Your task to perform on an android device: turn on location history Image 0: 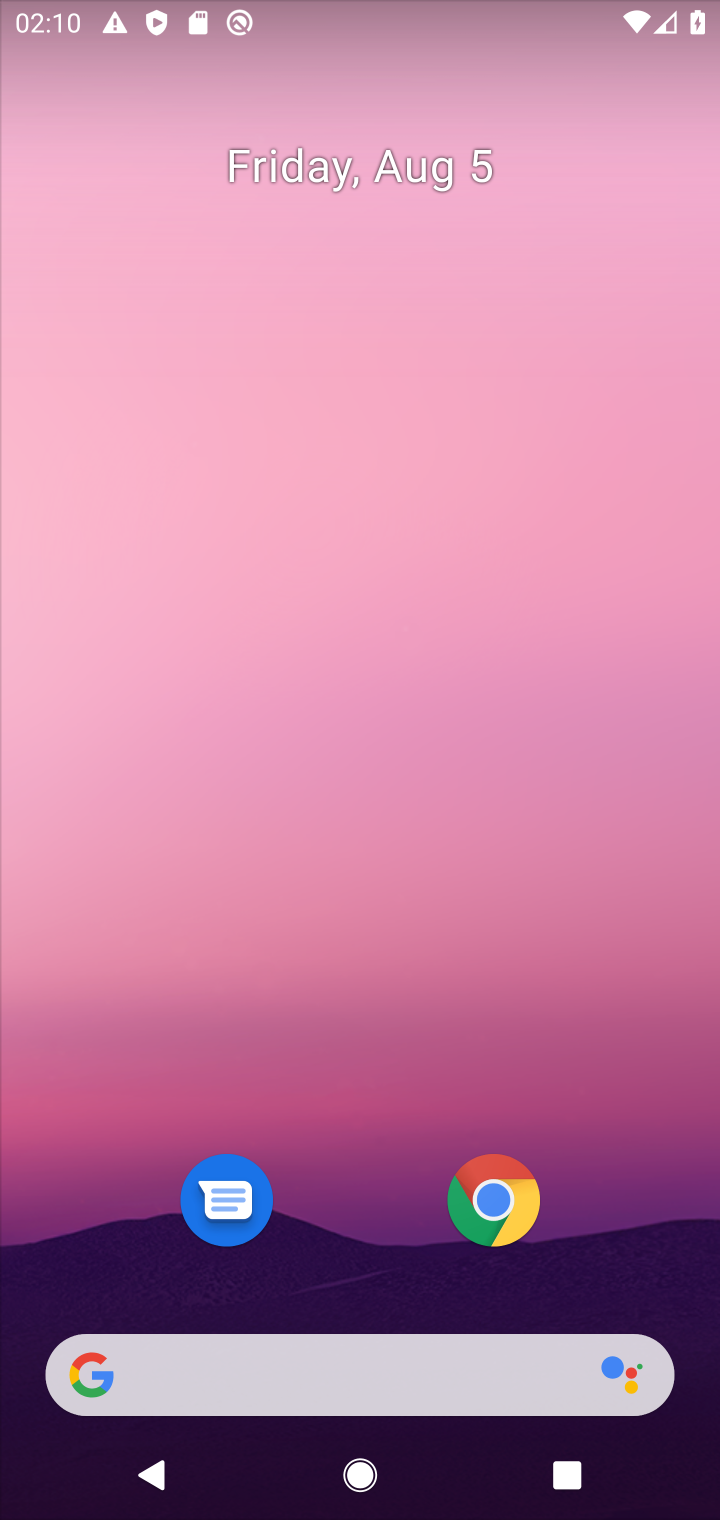
Step 0: drag from (348, 507) to (318, 151)
Your task to perform on an android device: turn on location history Image 1: 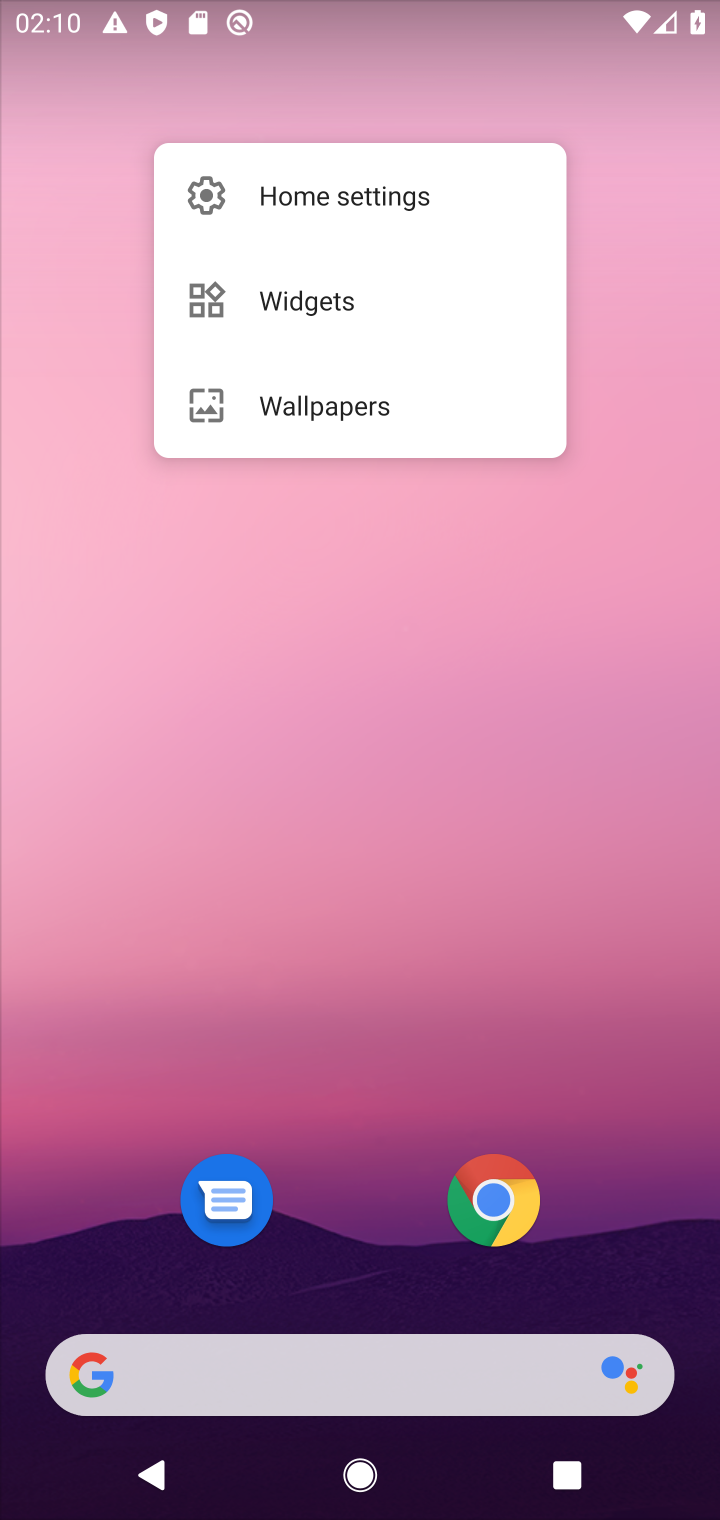
Step 1: click (411, 864)
Your task to perform on an android device: turn on location history Image 2: 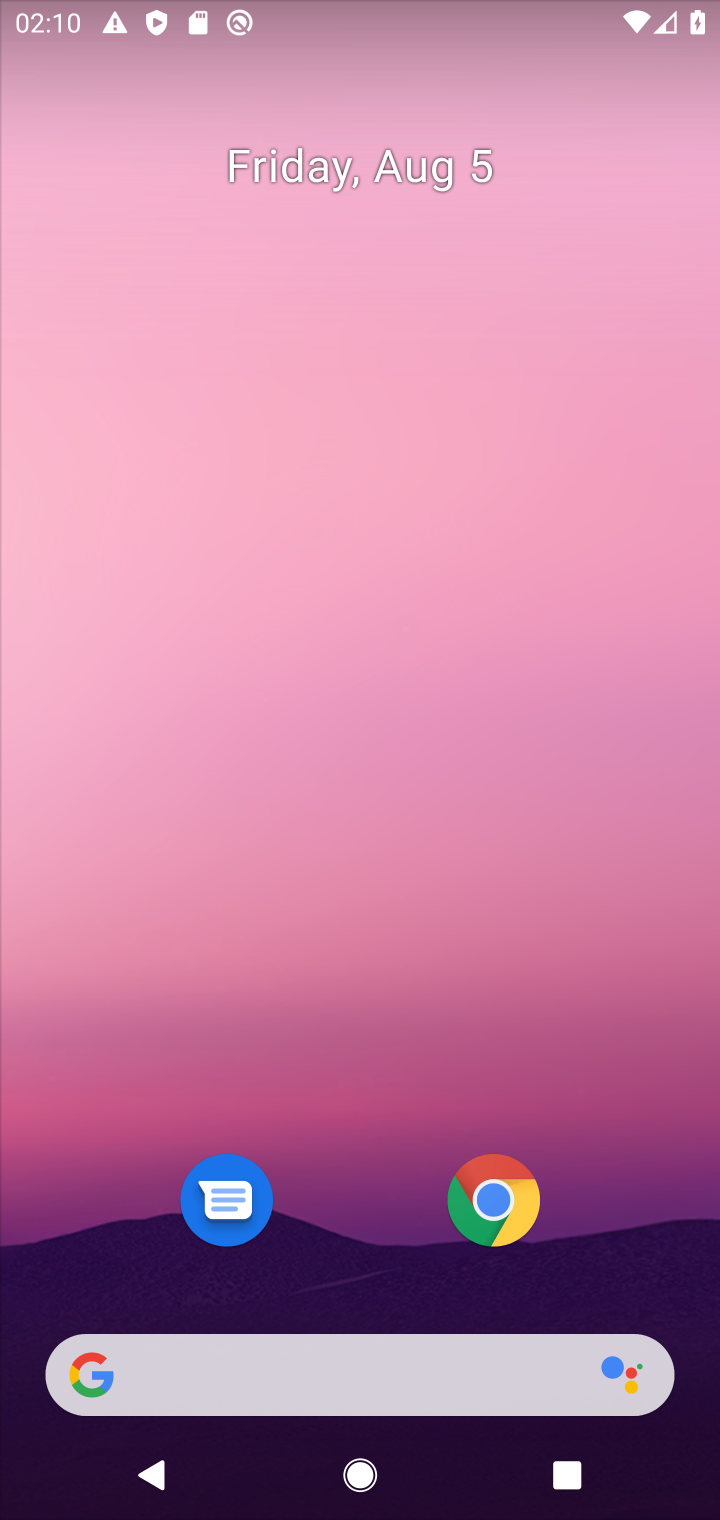
Step 2: drag from (360, 748) to (371, 0)
Your task to perform on an android device: turn on location history Image 3: 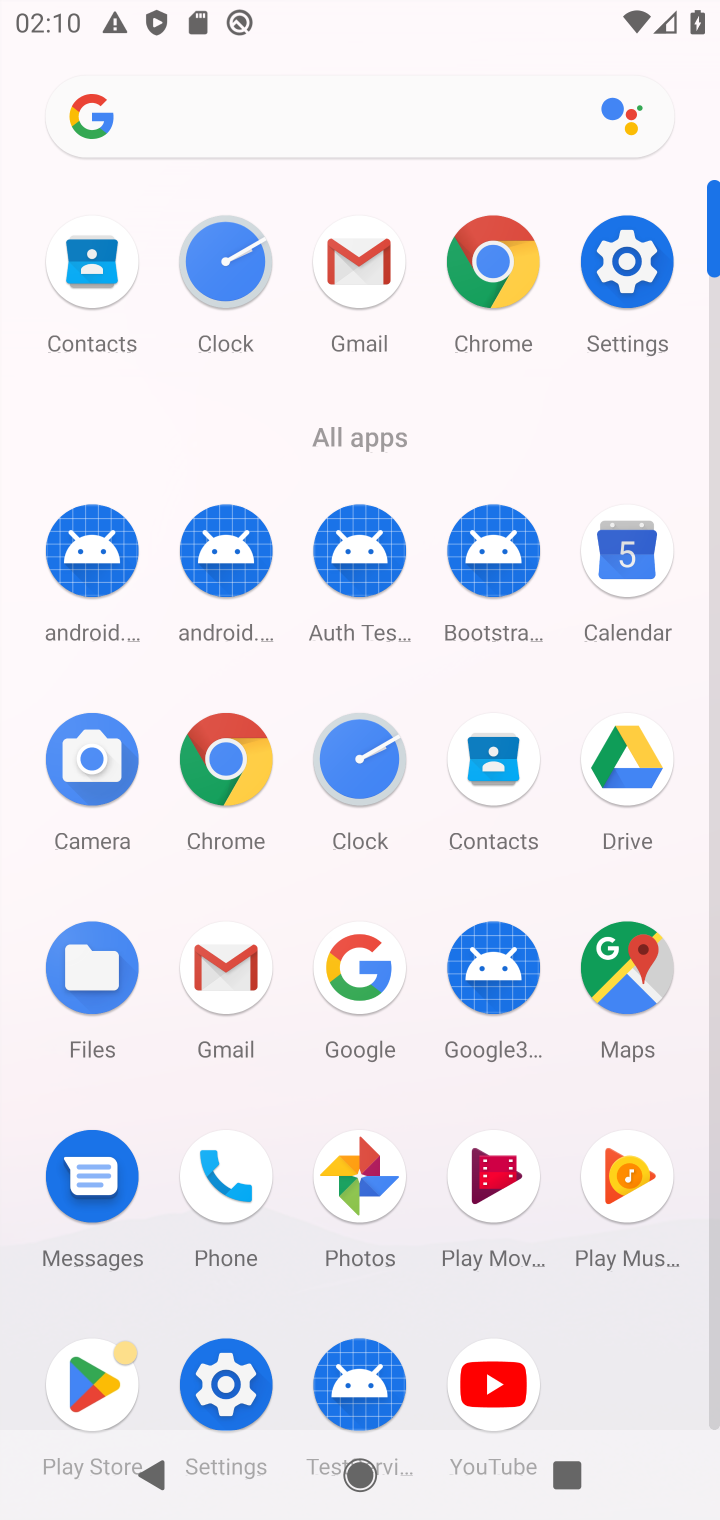
Step 3: click (604, 262)
Your task to perform on an android device: turn on location history Image 4: 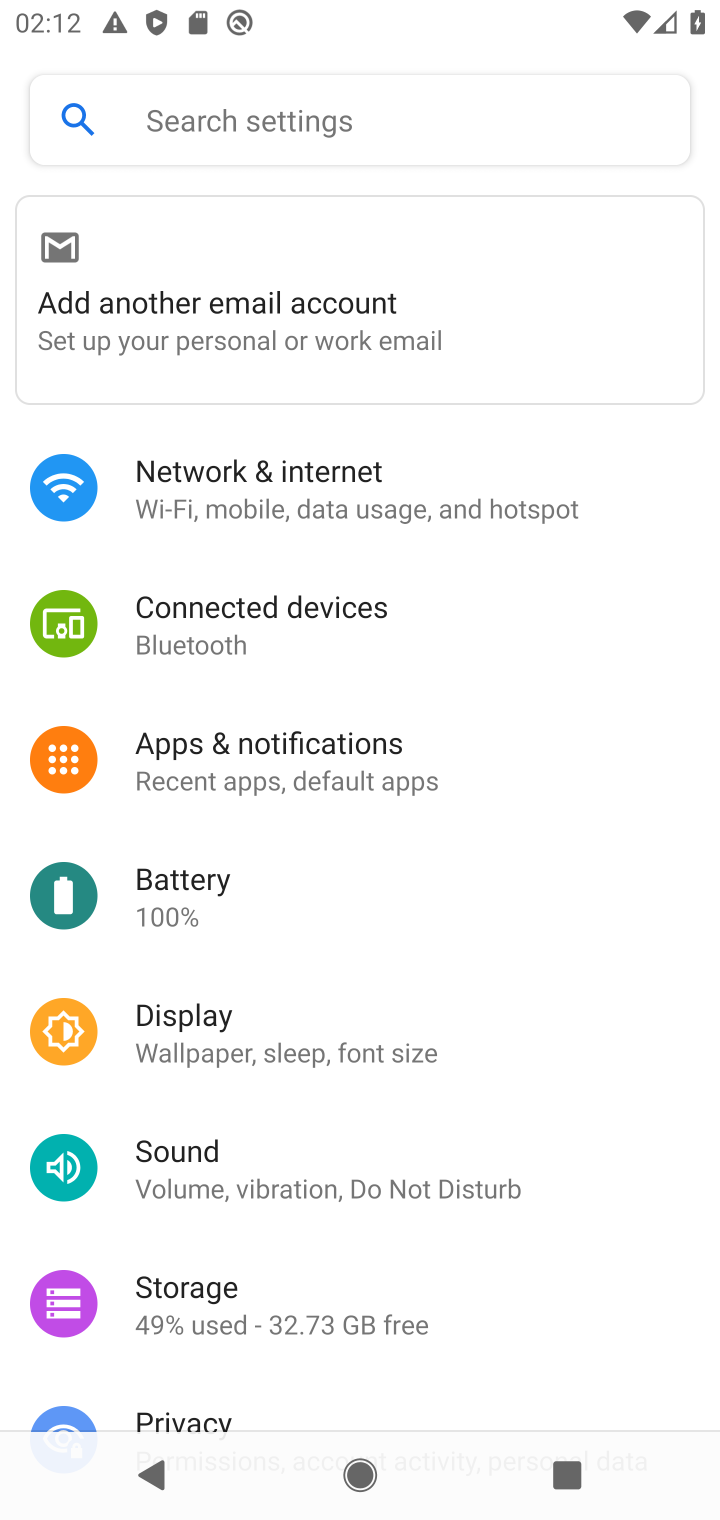
Step 4: drag from (359, 1251) to (330, 445)
Your task to perform on an android device: turn on location history Image 5: 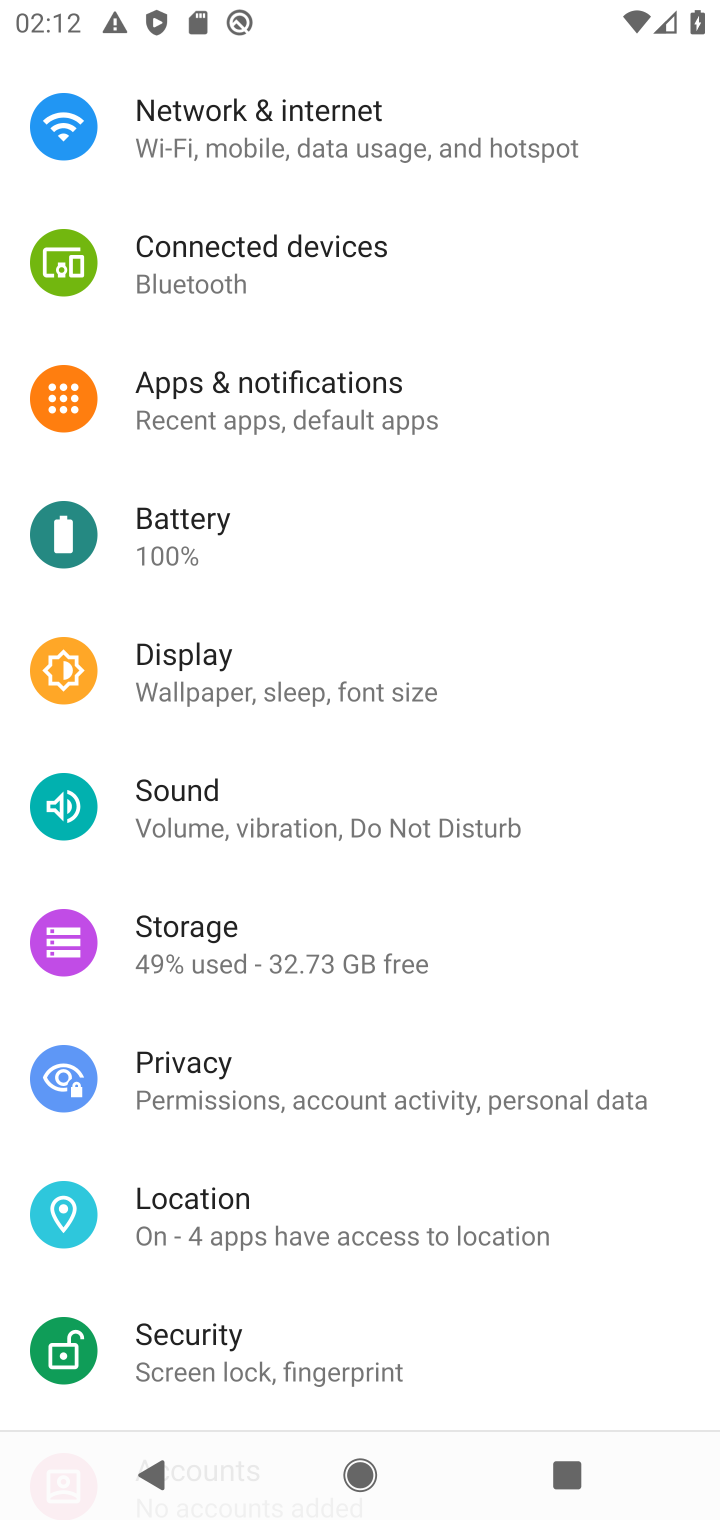
Step 5: drag from (384, 1191) to (417, 678)
Your task to perform on an android device: turn on location history Image 6: 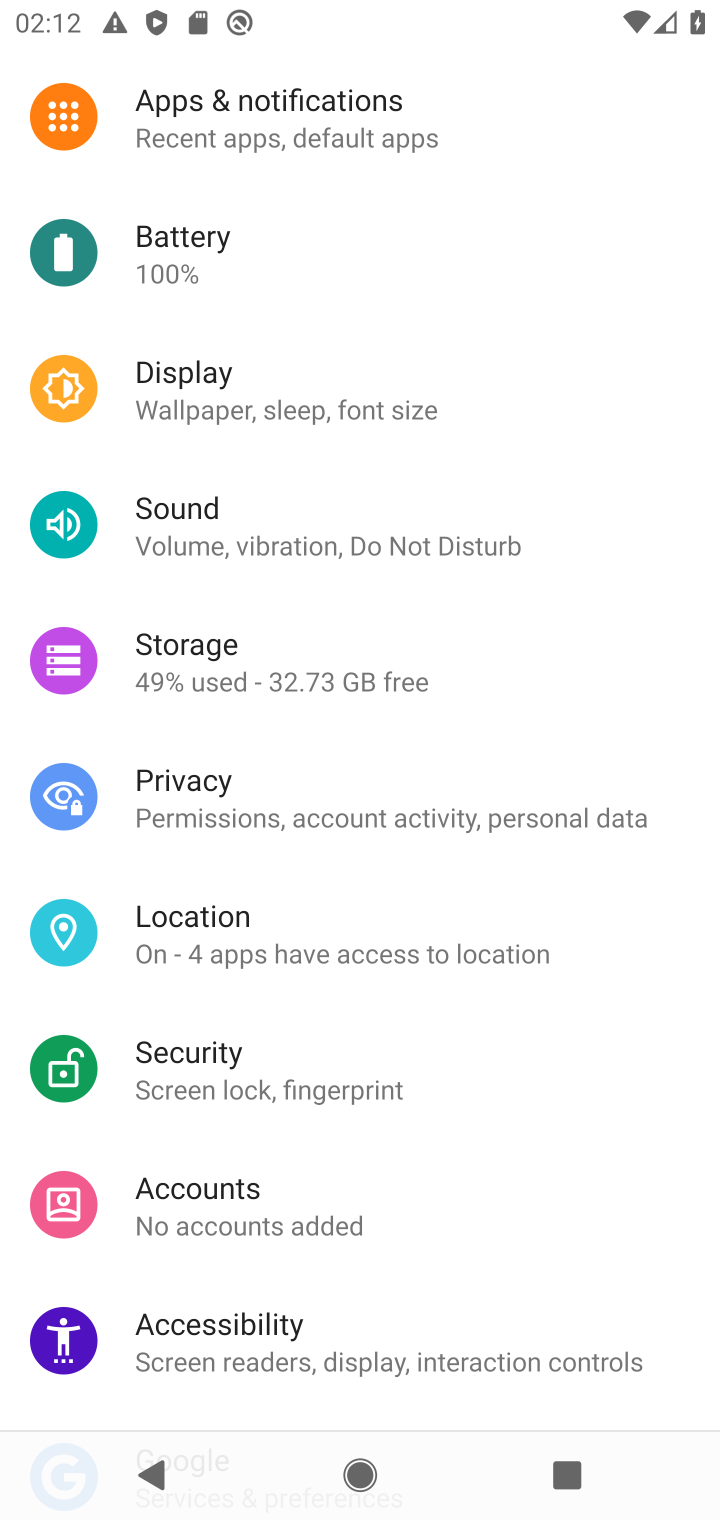
Step 6: click (233, 949)
Your task to perform on an android device: turn on location history Image 7: 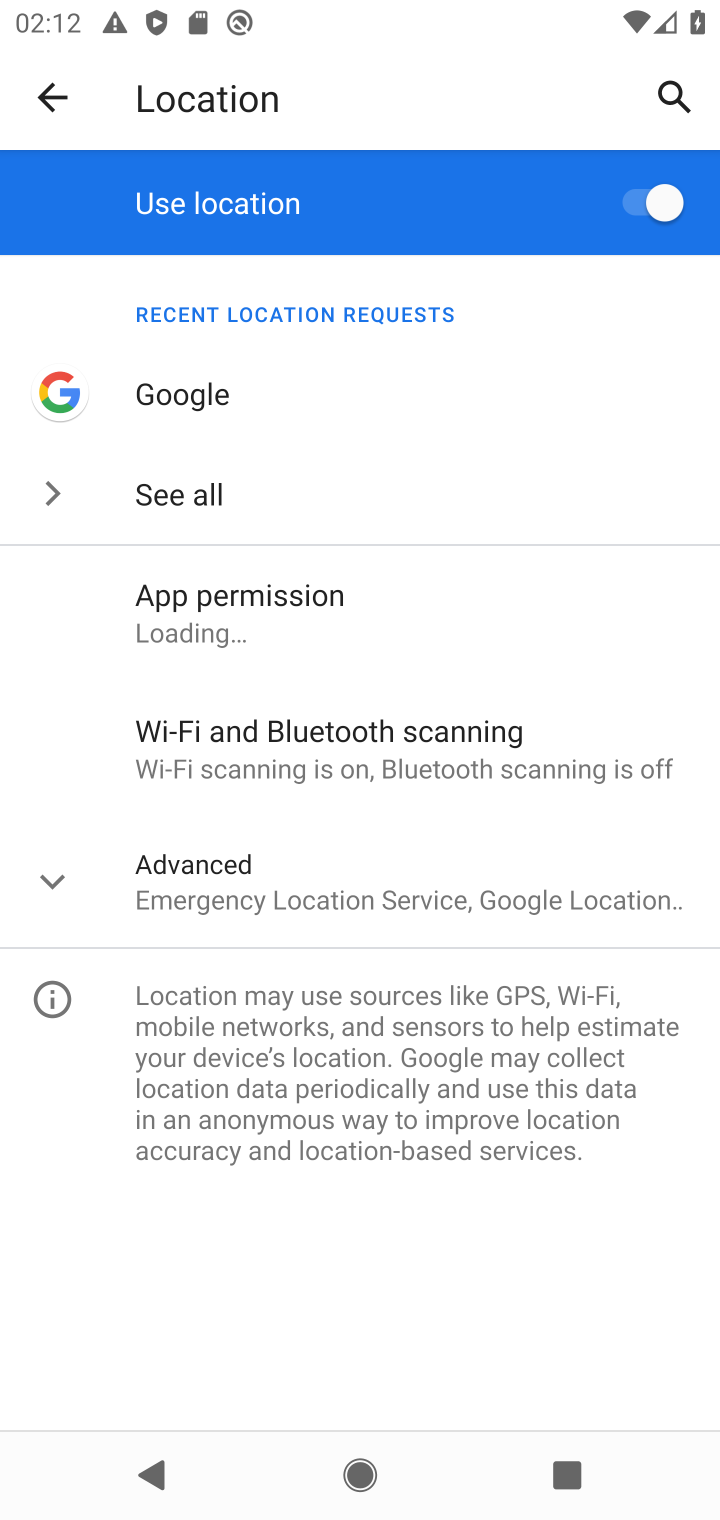
Step 7: click (453, 895)
Your task to perform on an android device: turn on location history Image 8: 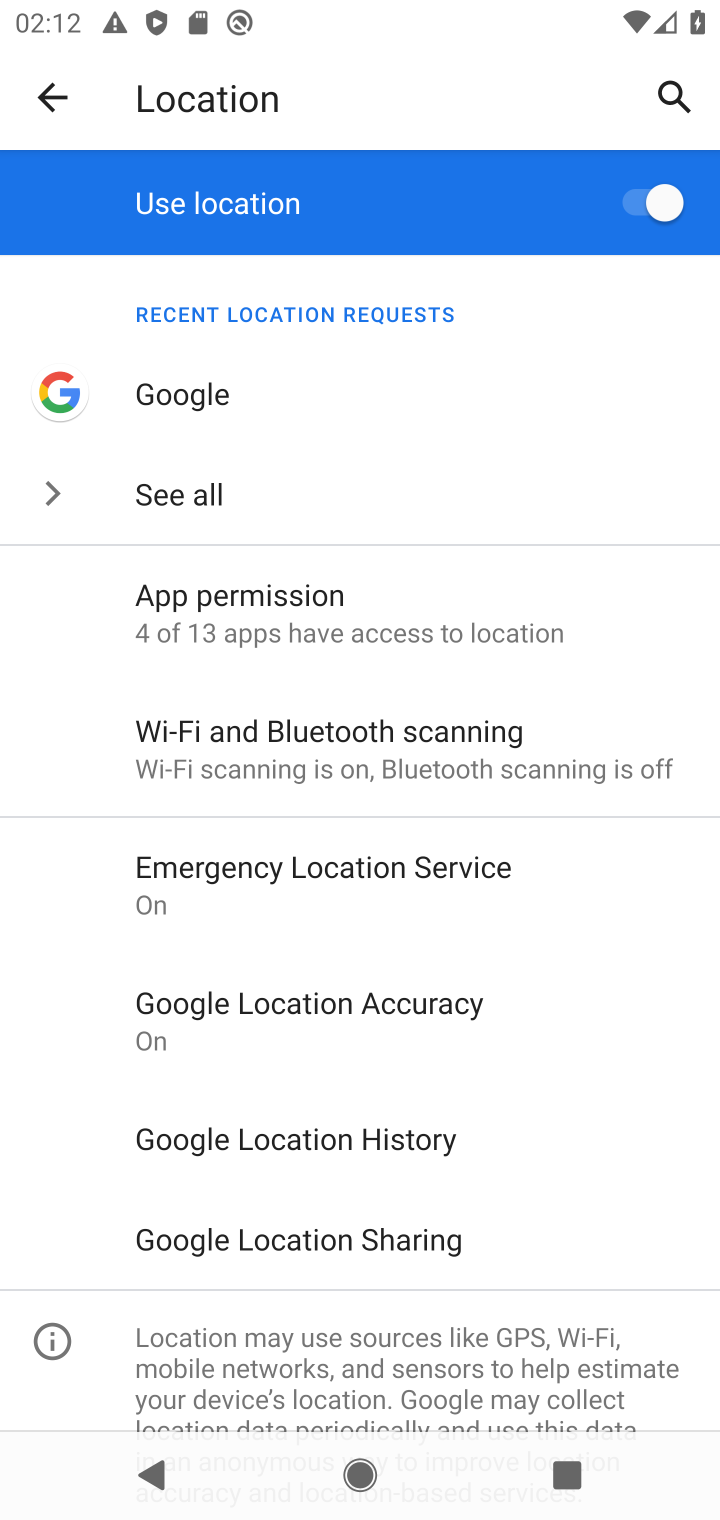
Step 8: click (507, 1147)
Your task to perform on an android device: turn on location history Image 9: 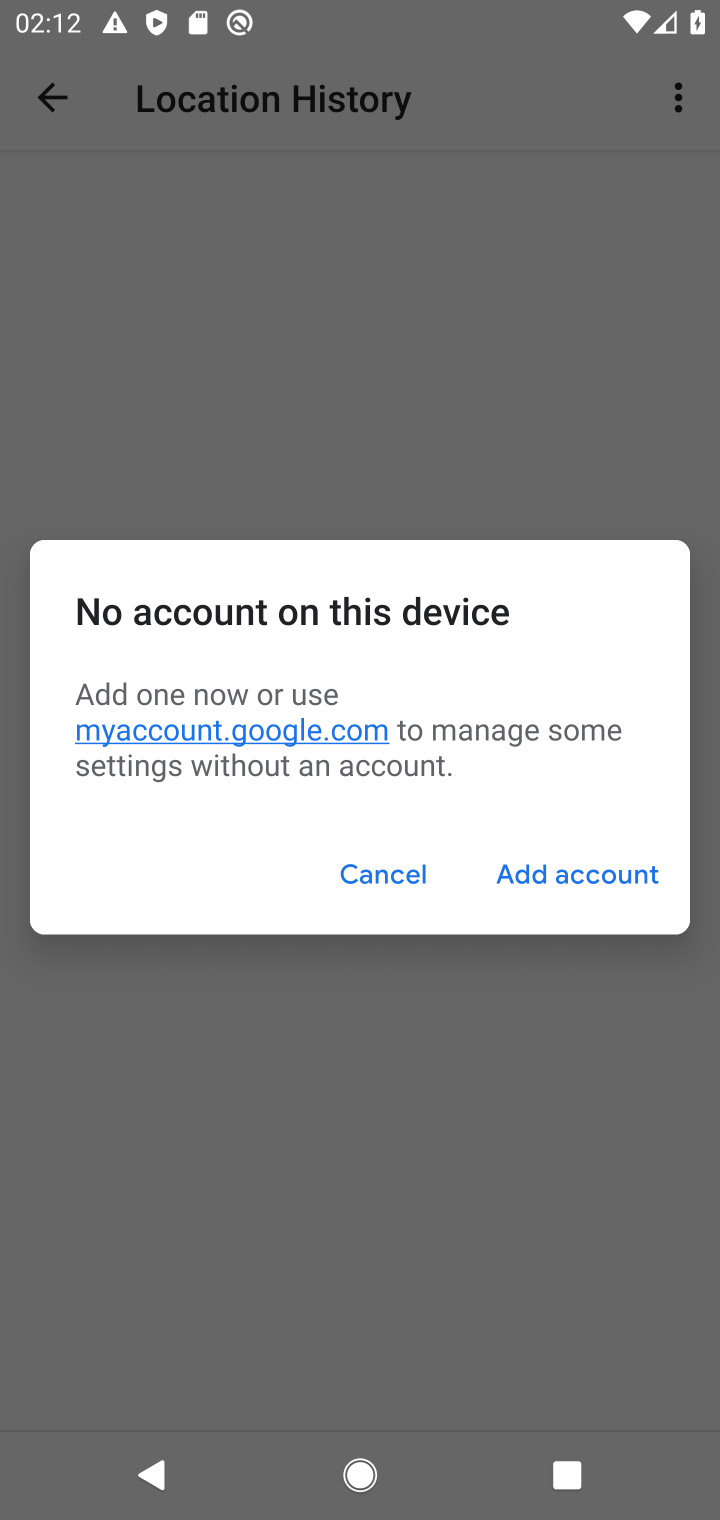
Step 9: click (553, 872)
Your task to perform on an android device: turn on location history Image 10: 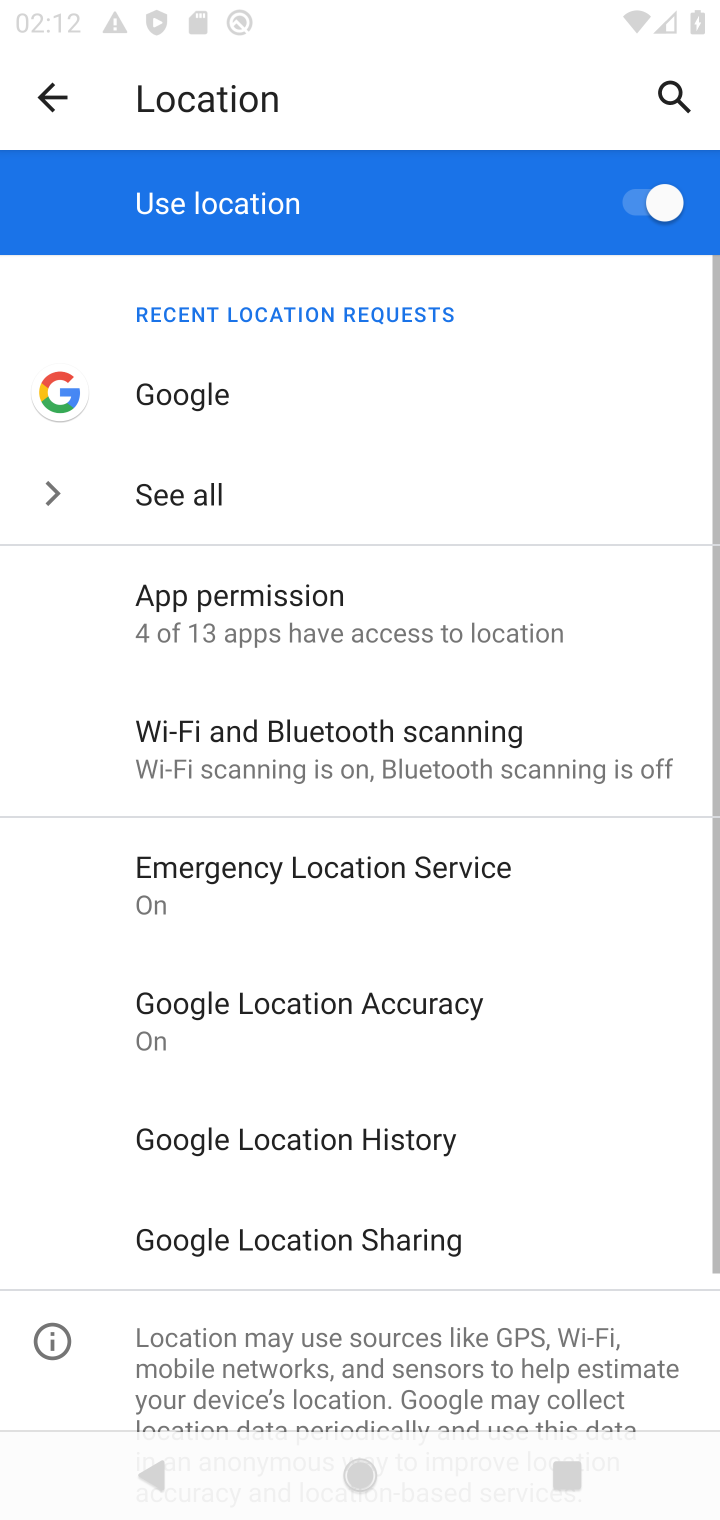
Step 10: task complete